Your task to perform on an android device: Show me popular games on the Play Store Image 0: 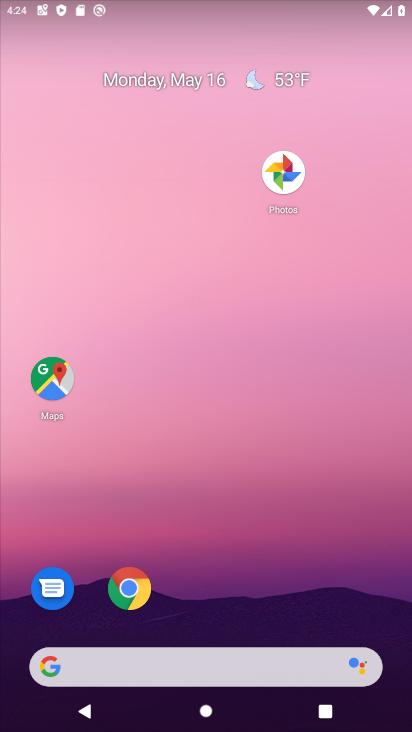
Step 0: drag from (210, 625) to (244, 85)
Your task to perform on an android device: Show me popular games on the Play Store Image 1: 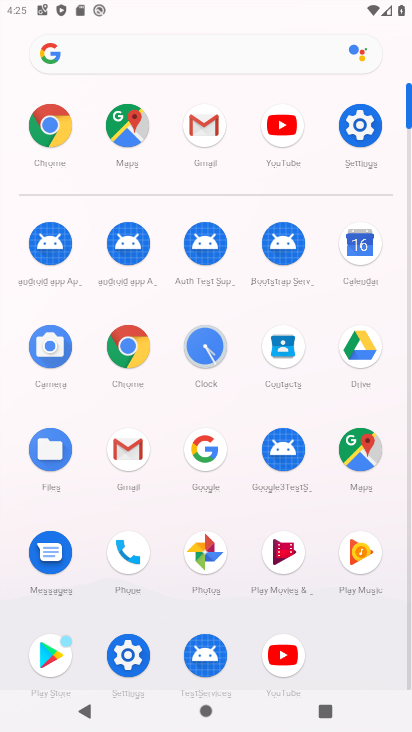
Step 1: click (46, 645)
Your task to perform on an android device: Show me popular games on the Play Store Image 2: 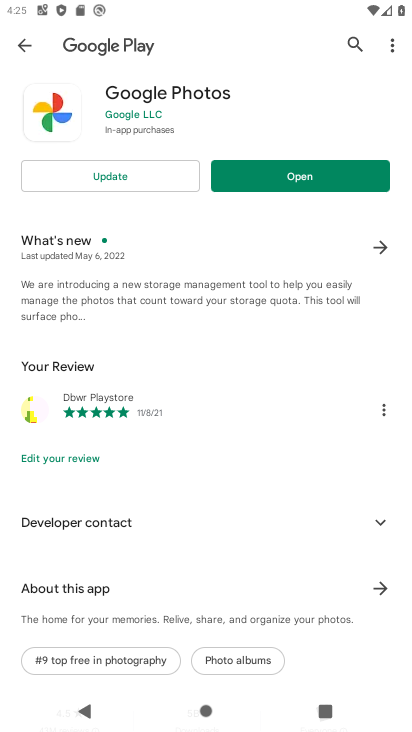
Step 2: click (22, 48)
Your task to perform on an android device: Show me popular games on the Play Store Image 3: 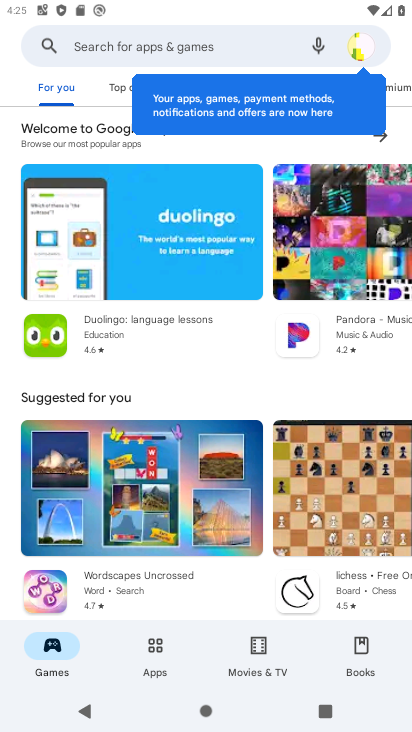
Step 3: click (221, 381)
Your task to perform on an android device: Show me popular games on the Play Store Image 4: 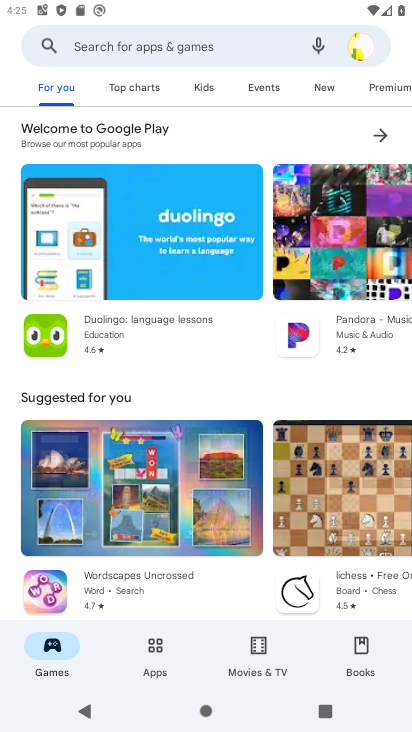
Step 4: click (138, 95)
Your task to perform on an android device: Show me popular games on the Play Store Image 5: 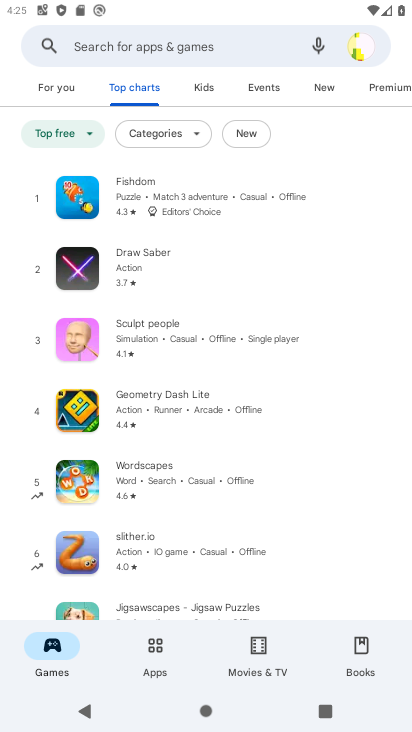
Step 5: task complete